Your task to perform on an android device: turn off priority inbox in the gmail app Image 0: 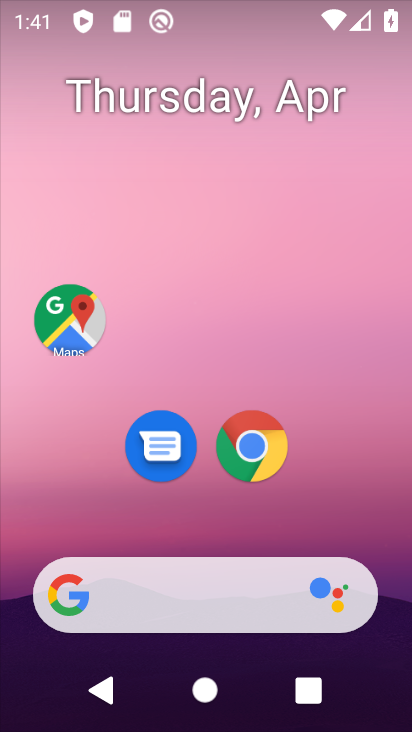
Step 0: click (308, 260)
Your task to perform on an android device: turn off priority inbox in the gmail app Image 1: 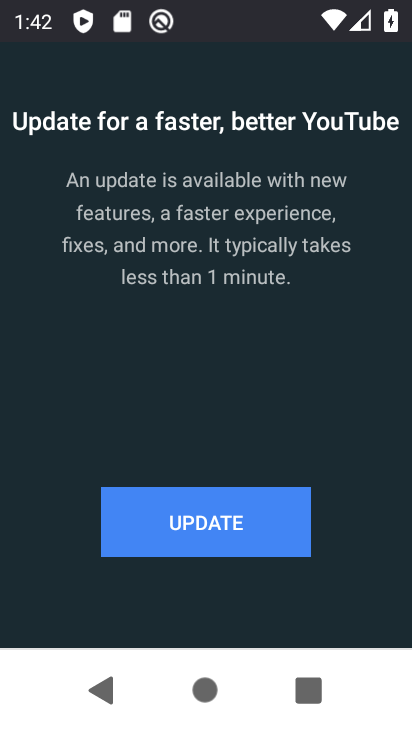
Step 1: task complete